Your task to perform on an android device: Clear the shopping cart on walmart. Search for "rayovac triple a" on walmart, select the first entry, and add it to the cart. Image 0: 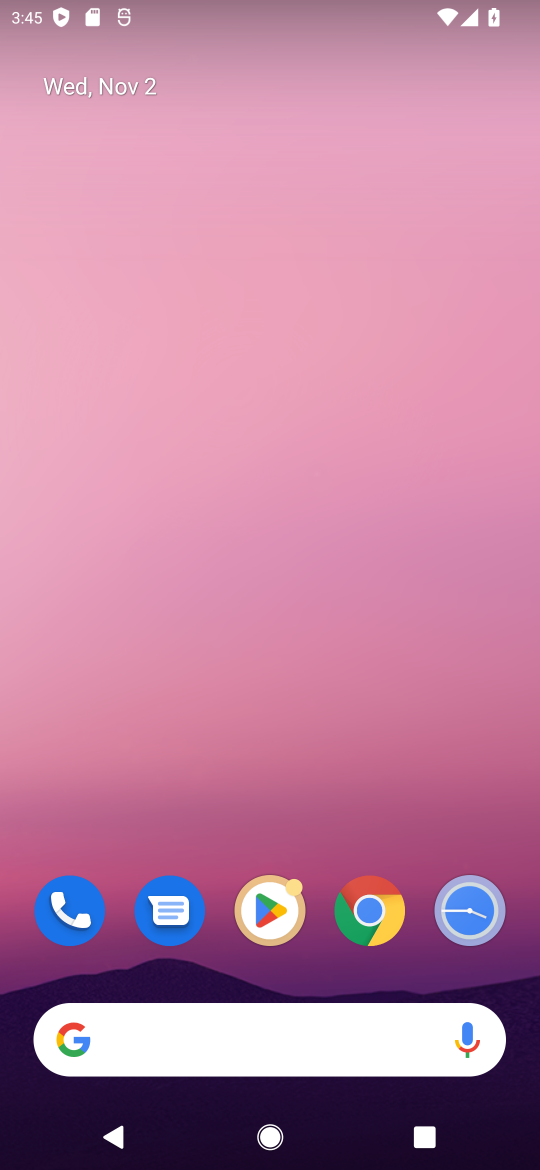
Step 0: click (360, 936)
Your task to perform on an android device: Clear the shopping cart on walmart. Search for "rayovac triple a" on walmart, select the first entry, and add it to the cart. Image 1: 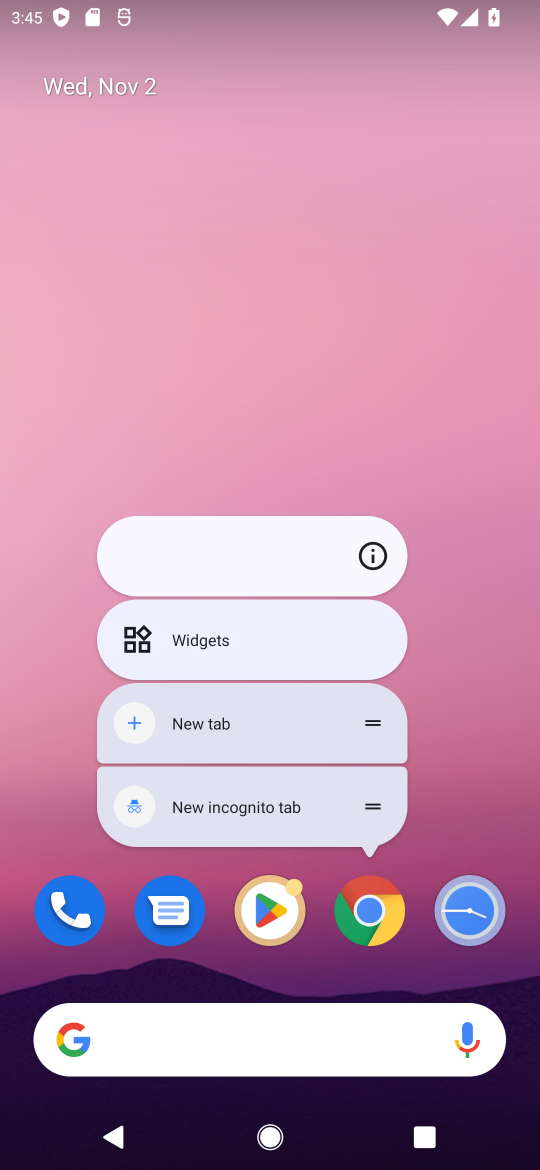
Step 1: click (368, 920)
Your task to perform on an android device: Clear the shopping cart on walmart. Search for "rayovac triple a" on walmart, select the first entry, and add it to the cart. Image 2: 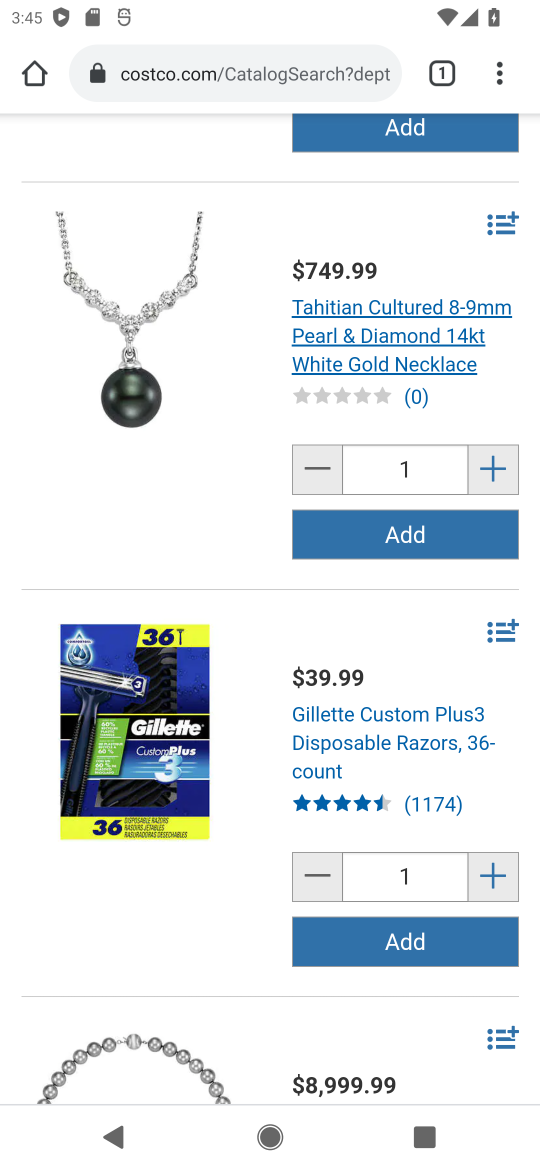
Step 2: click (144, 70)
Your task to perform on an android device: Clear the shopping cart on walmart. Search for "rayovac triple a" on walmart, select the first entry, and add it to the cart. Image 3: 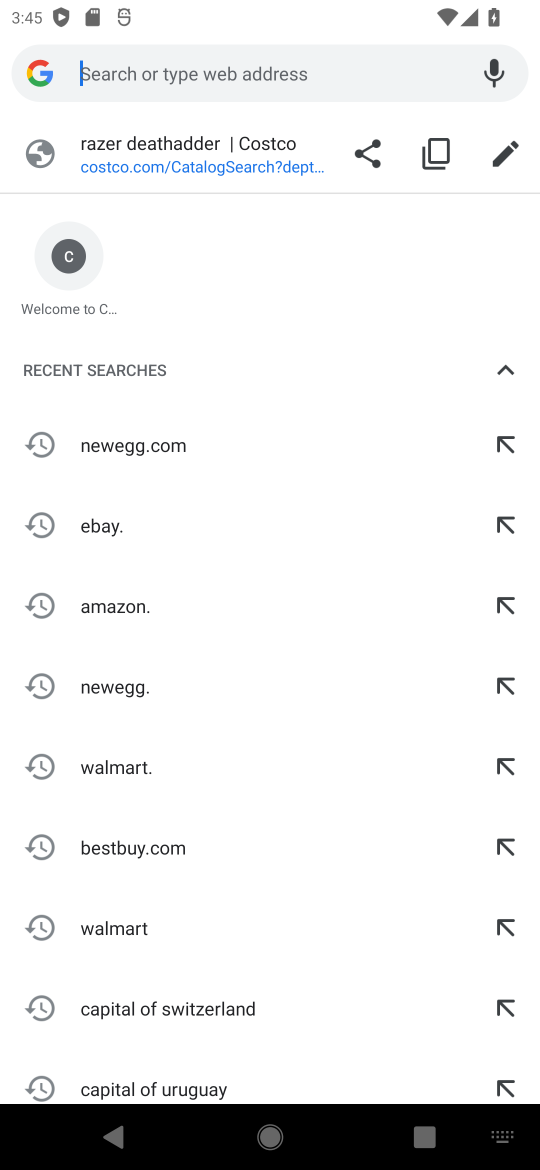
Step 3: type "walmart"
Your task to perform on an android device: Clear the shopping cart on walmart. Search for "rayovac triple a" on walmart, select the first entry, and add it to the cart. Image 4: 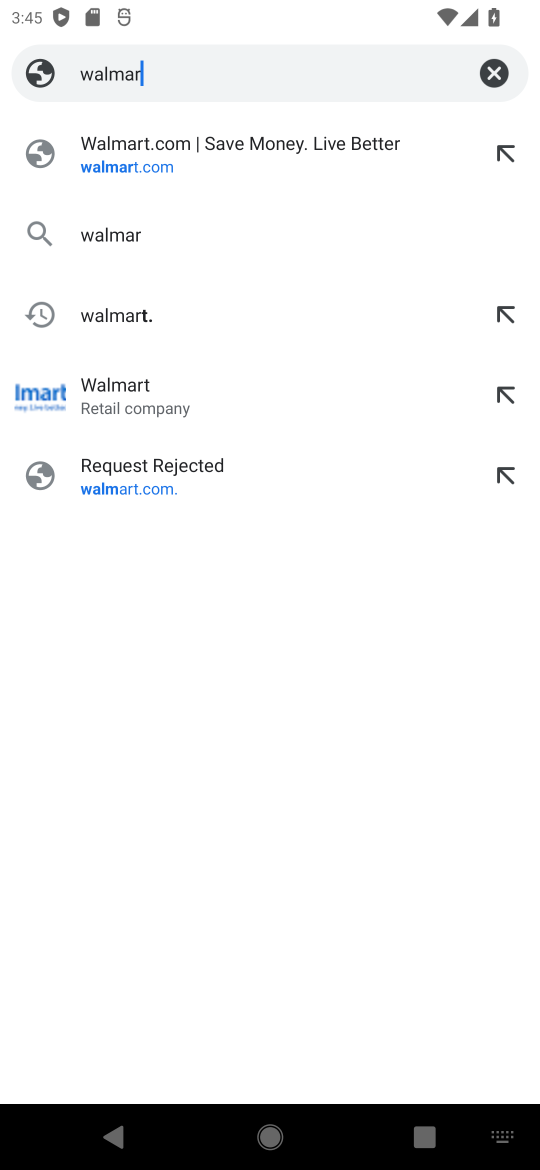
Step 4: type ""
Your task to perform on an android device: Clear the shopping cart on walmart. Search for "rayovac triple a" on walmart, select the first entry, and add it to the cart. Image 5: 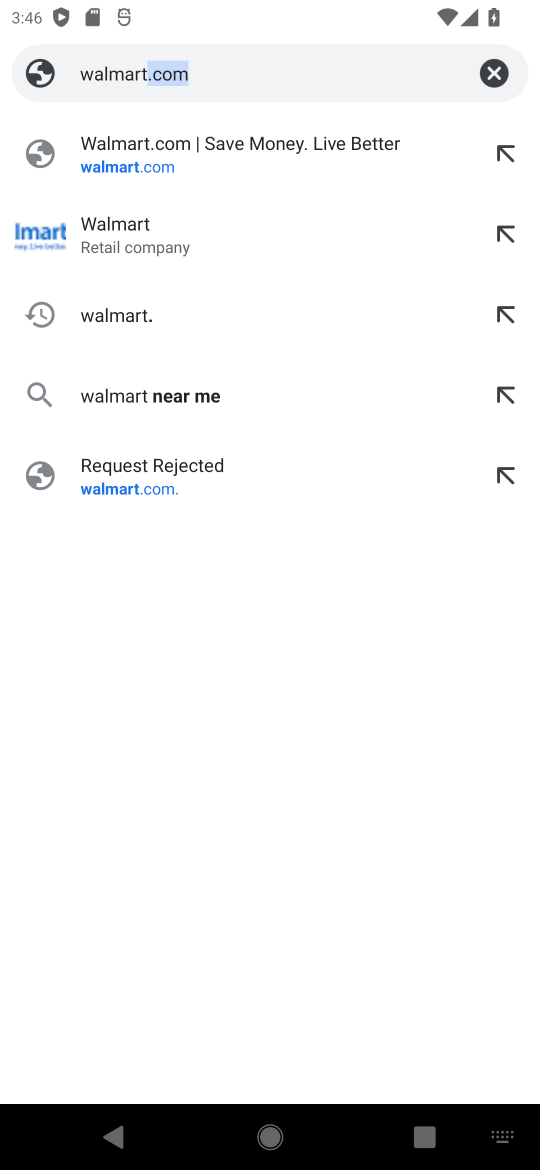
Step 5: click (361, 141)
Your task to perform on an android device: Clear the shopping cart on walmart. Search for "rayovac triple a" on walmart, select the first entry, and add it to the cart. Image 6: 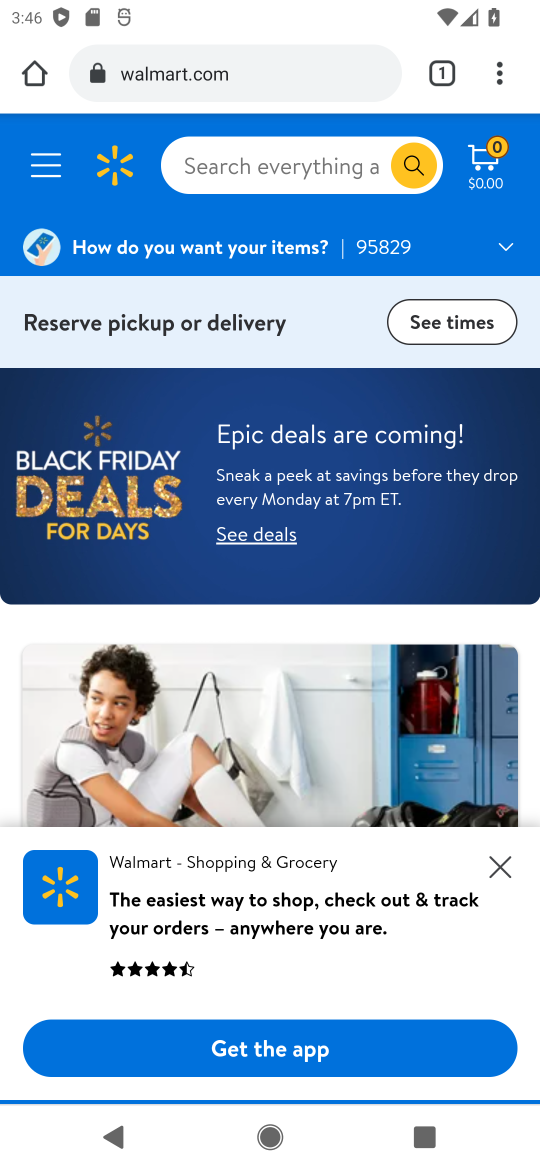
Step 6: click (489, 867)
Your task to perform on an android device: Clear the shopping cart on walmart. Search for "rayovac triple a" on walmart, select the first entry, and add it to the cart. Image 7: 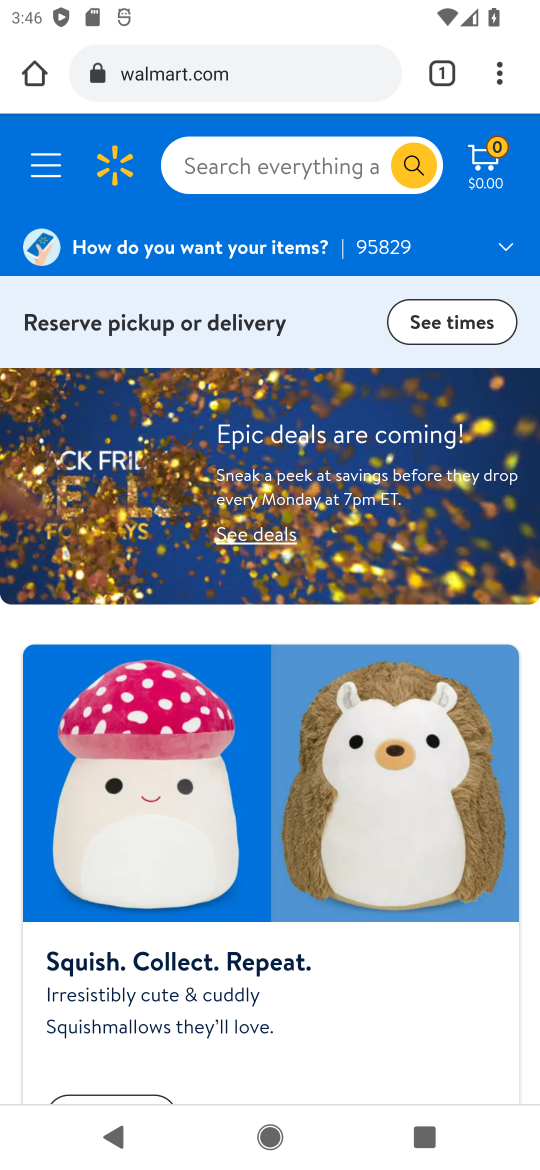
Step 7: click (257, 168)
Your task to perform on an android device: Clear the shopping cart on walmart. Search for "rayovac triple a" on walmart, select the first entry, and add it to the cart. Image 8: 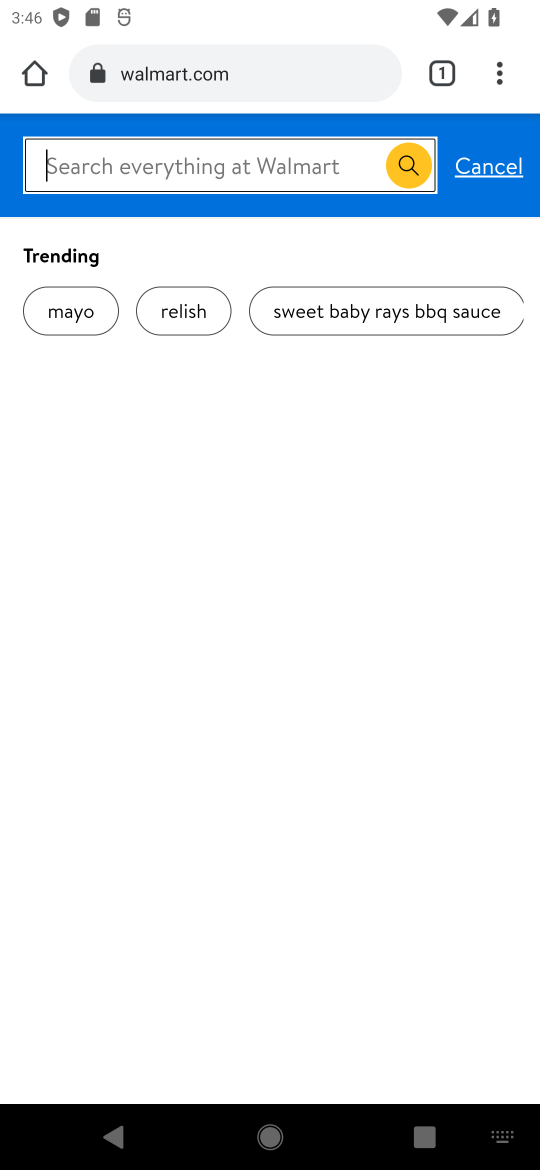
Step 8: type "rayovac triple a"
Your task to perform on an android device: Clear the shopping cart on walmart. Search for "rayovac triple a" on walmart, select the first entry, and add it to the cart. Image 9: 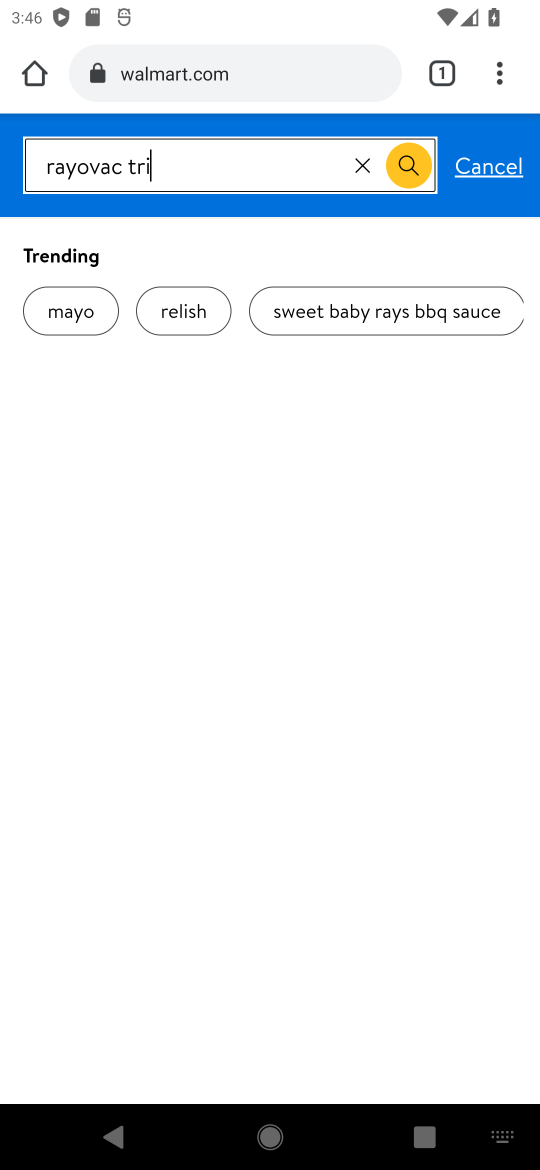
Step 9: type ""
Your task to perform on an android device: Clear the shopping cart on walmart. Search for "rayovac triple a" on walmart, select the first entry, and add it to the cart. Image 10: 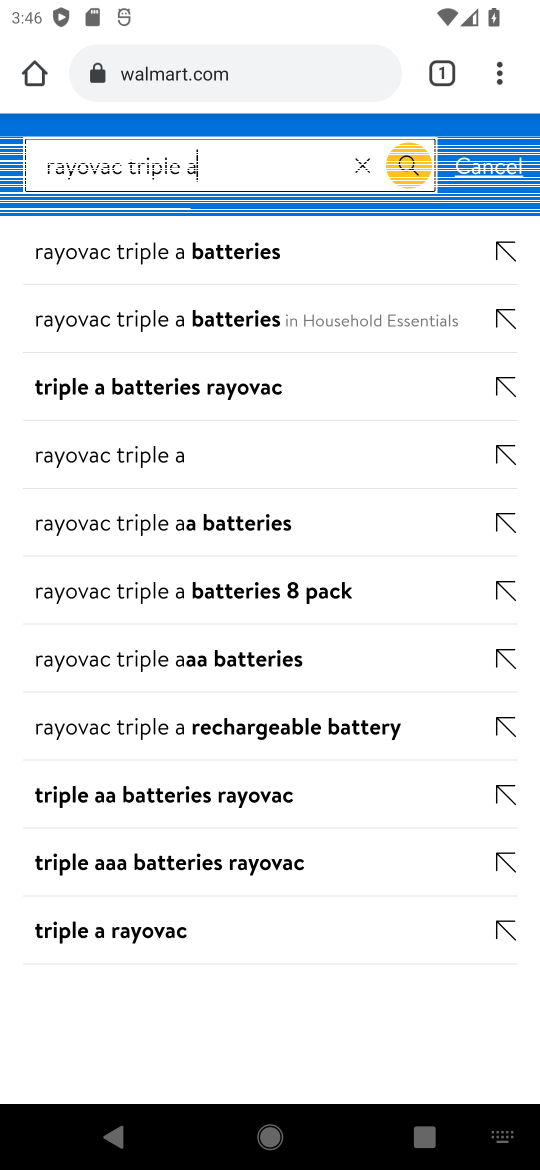
Step 10: click (191, 247)
Your task to perform on an android device: Clear the shopping cart on walmart. Search for "rayovac triple a" on walmart, select the first entry, and add it to the cart. Image 11: 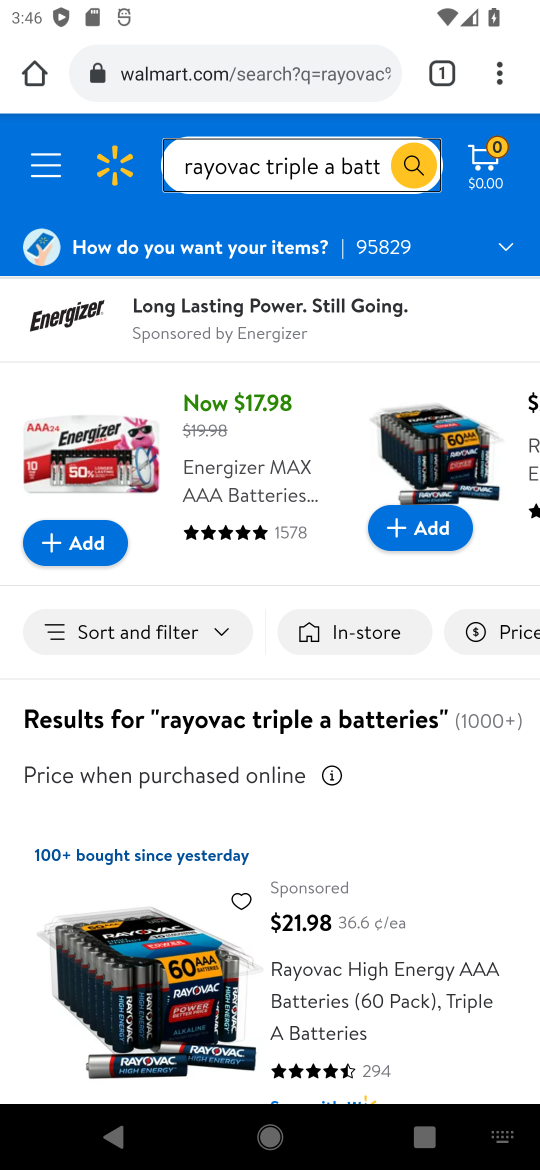
Step 11: drag from (442, 906) to (436, 701)
Your task to perform on an android device: Clear the shopping cart on walmart. Search for "rayovac triple a" on walmart, select the first entry, and add it to the cart. Image 12: 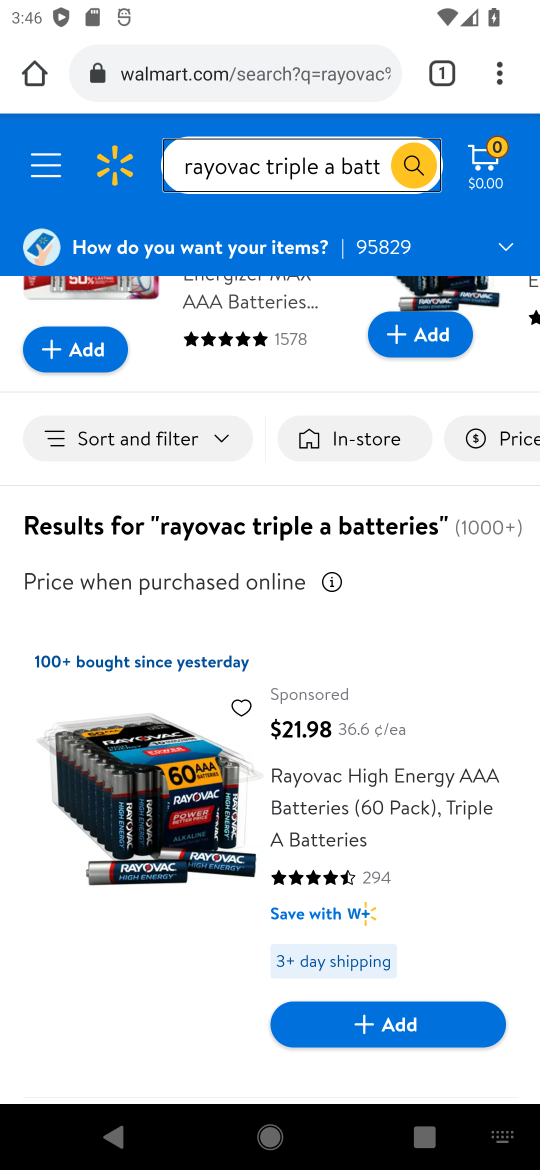
Step 12: click (377, 1031)
Your task to perform on an android device: Clear the shopping cart on walmart. Search for "rayovac triple a" on walmart, select the first entry, and add it to the cart. Image 13: 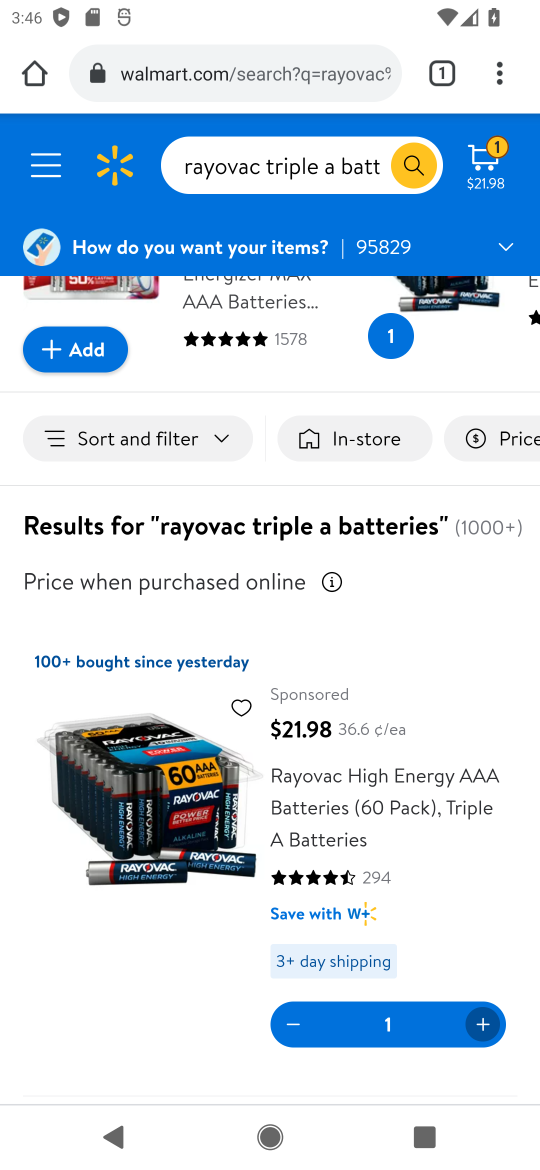
Step 13: click (502, 183)
Your task to perform on an android device: Clear the shopping cart on walmart. Search for "rayovac triple a" on walmart, select the first entry, and add it to the cart. Image 14: 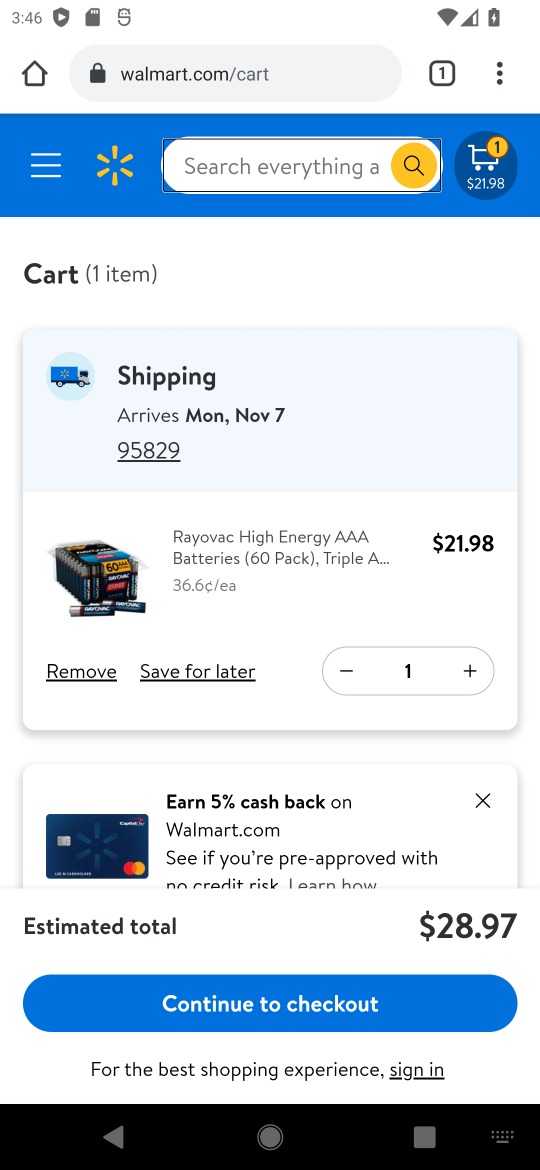
Step 14: click (476, 794)
Your task to perform on an android device: Clear the shopping cart on walmart. Search for "rayovac triple a" on walmart, select the first entry, and add it to the cart. Image 15: 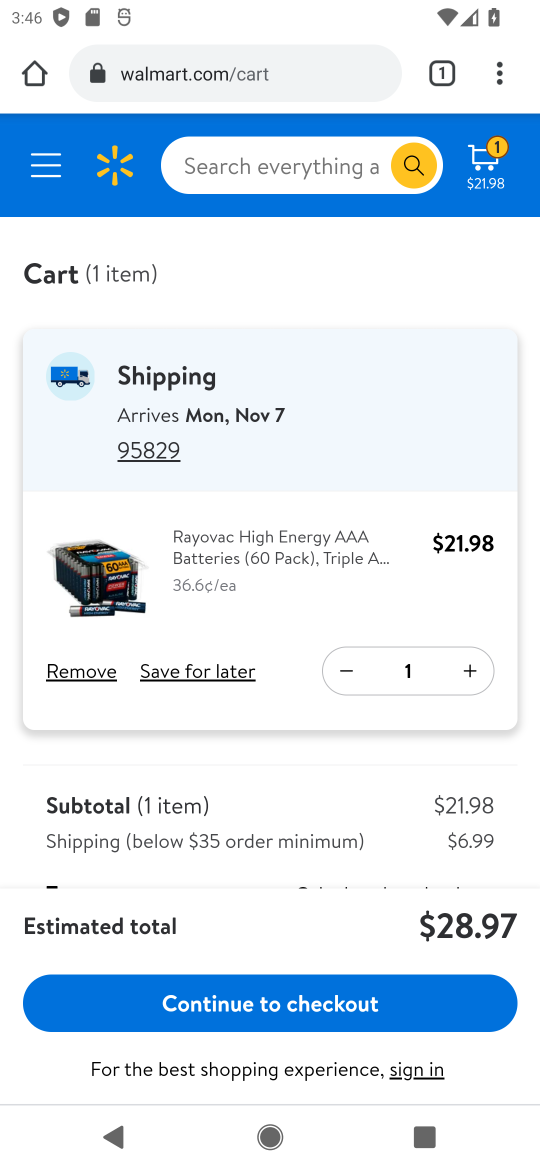
Step 15: click (450, 580)
Your task to perform on an android device: Clear the shopping cart on walmart. Search for "rayovac triple a" on walmart, select the first entry, and add it to the cart. Image 16: 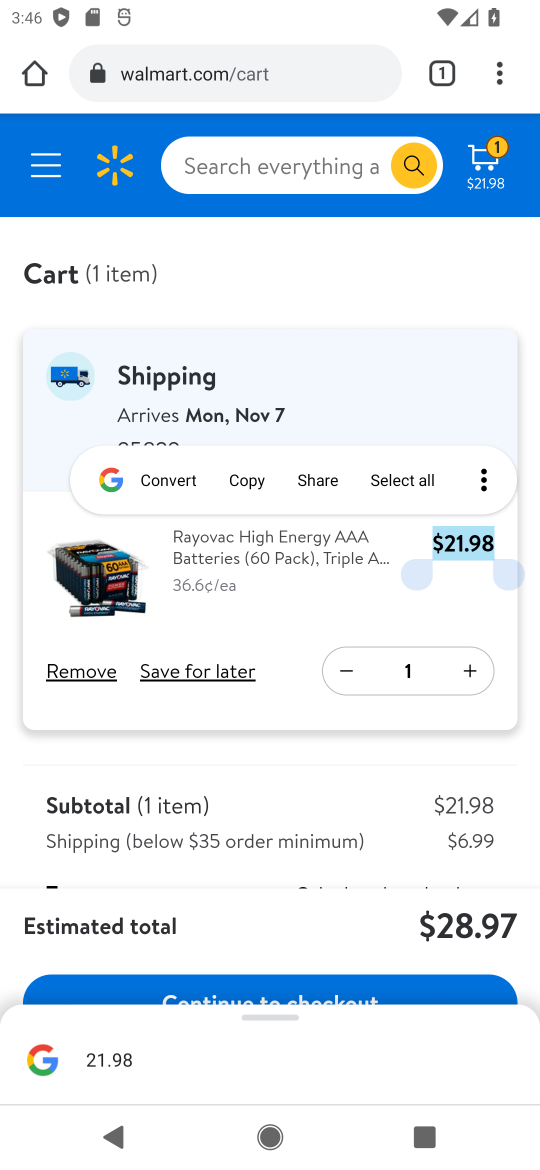
Step 16: drag from (266, 792) to (361, 487)
Your task to perform on an android device: Clear the shopping cart on walmart. Search for "rayovac triple a" on walmart, select the first entry, and add it to the cart. Image 17: 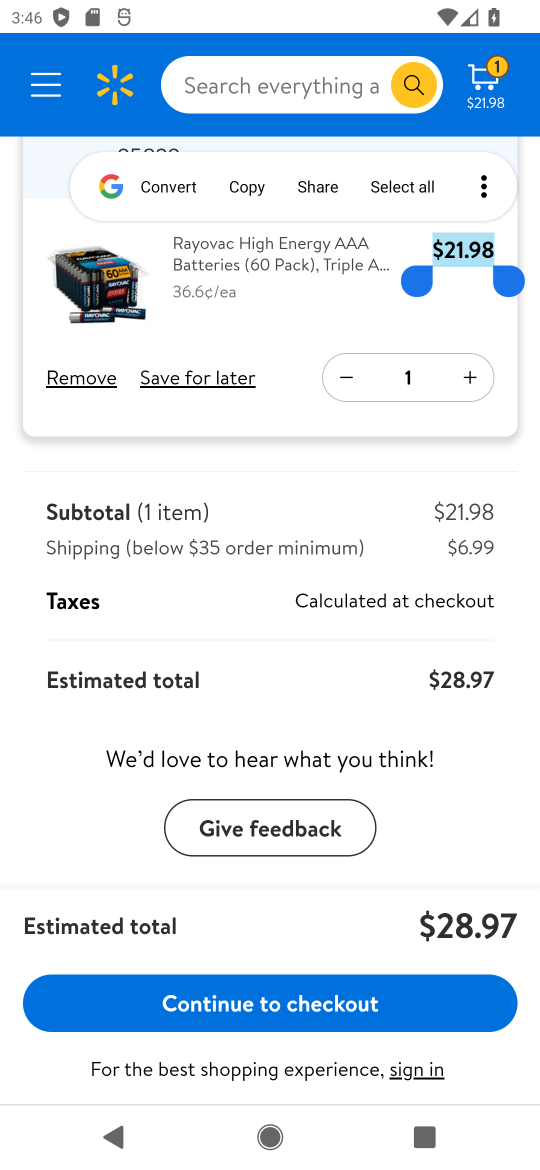
Step 17: click (279, 910)
Your task to perform on an android device: Clear the shopping cart on walmart. Search for "rayovac triple a" on walmart, select the first entry, and add it to the cart. Image 18: 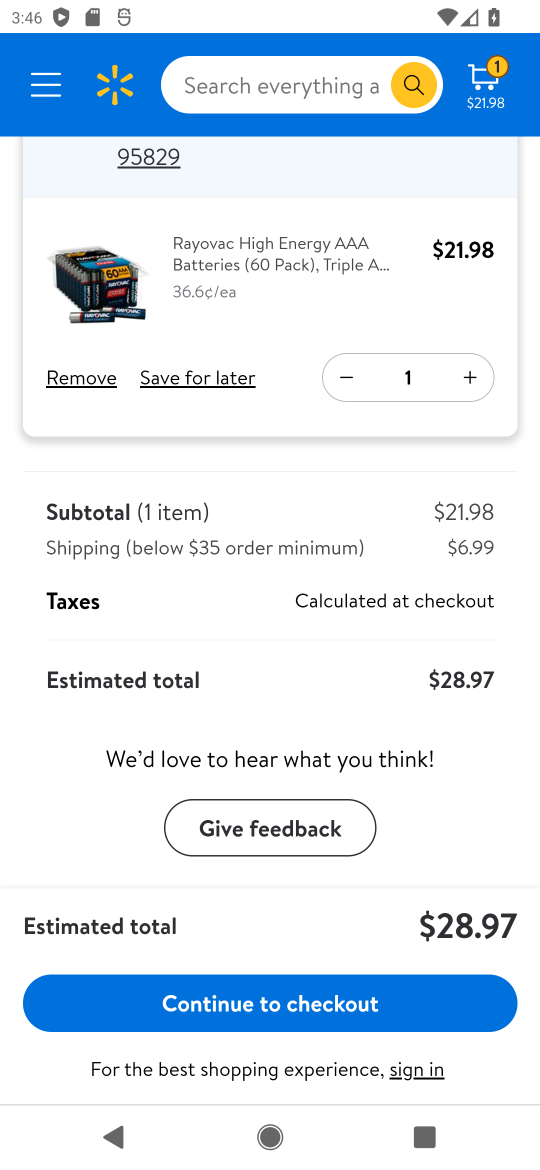
Step 18: click (289, 980)
Your task to perform on an android device: Clear the shopping cart on walmart. Search for "rayovac triple a" on walmart, select the first entry, and add it to the cart. Image 19: 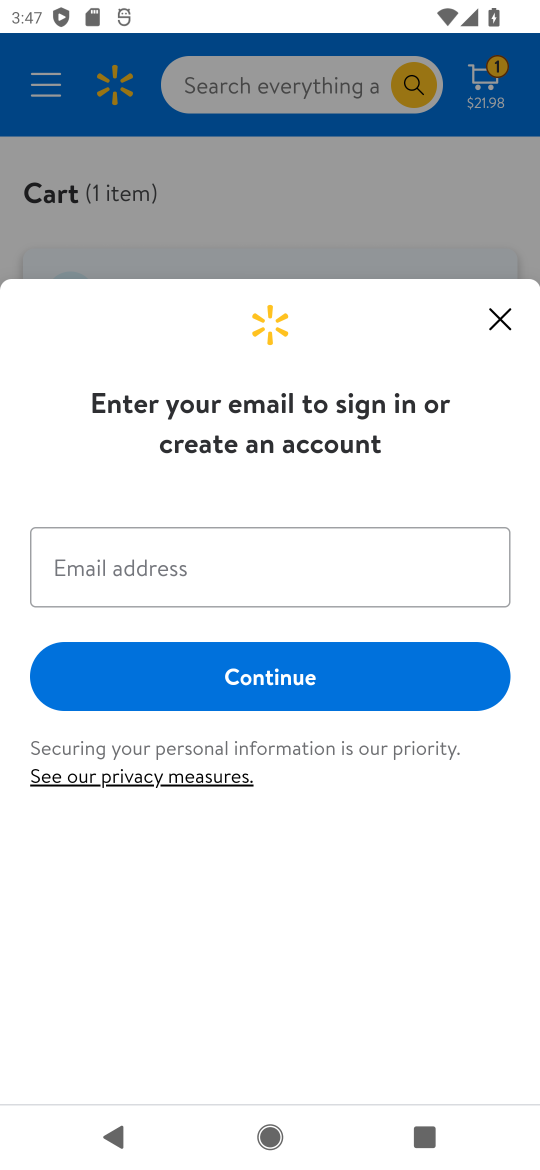
Step 19: click (493, 313)
Your task to perform on an android device: Clear the shopping cart on walmart. Search for "rayovac triple a" on walmart, select the first entry, and add it to the cart. Image 20: 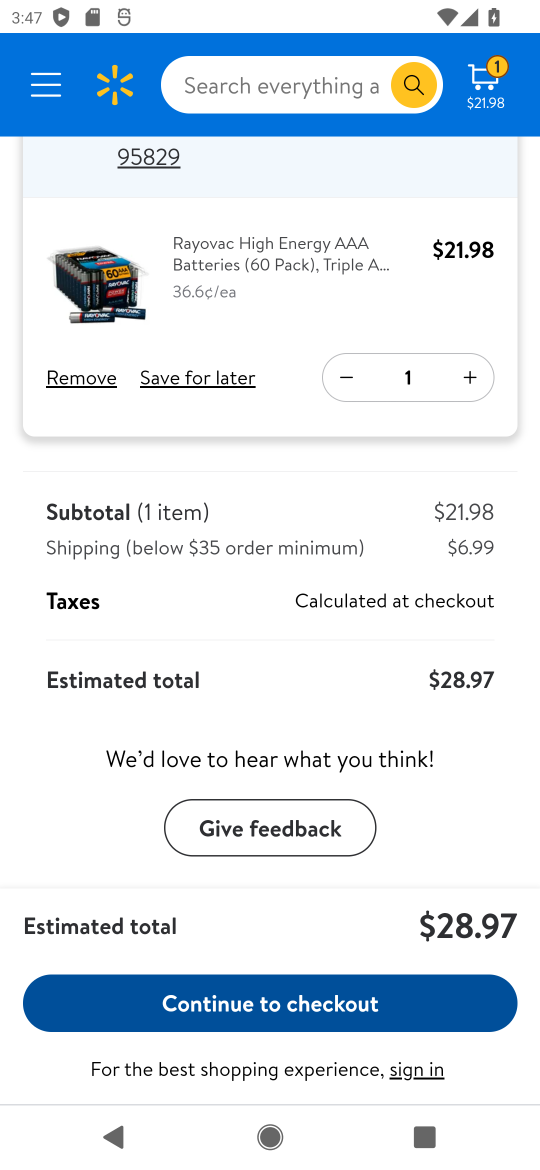
Step 20: drag from (381, 741) to (405, 406)
Your task to perform on an android device: Clear the shopping cart on walmart. Search for "rayovac triple a" on walmart, select the first entry, and add it to the cart. Image 21: 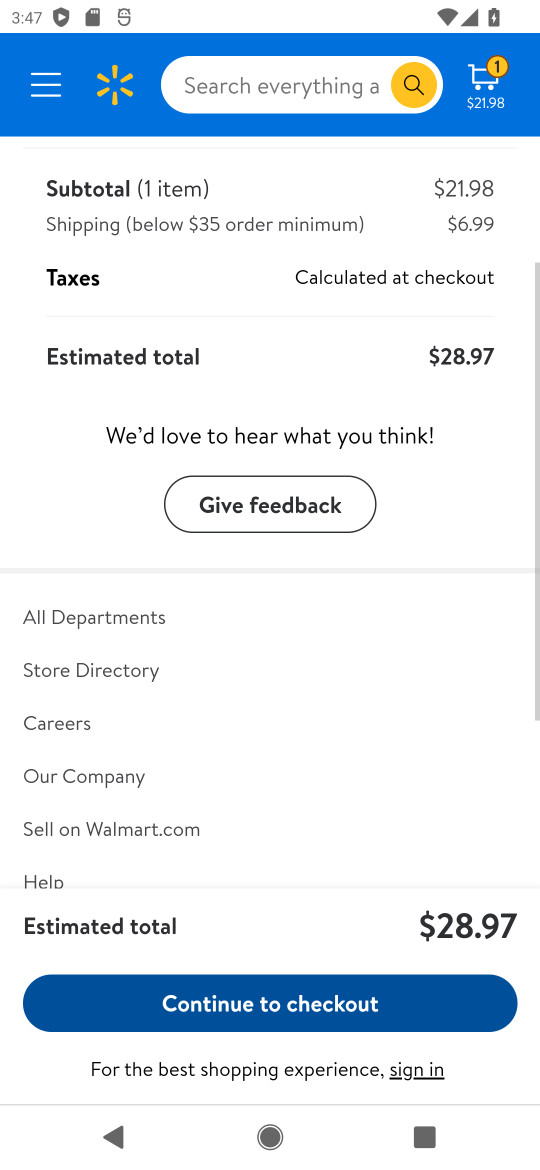
Step 21: click (286, 1024)
Your task to perform on an android device: Clear the shopping cart on walmart. Search for "rayovac triple a" on walmart, select the first entry, and add it to the cart. Image 22: 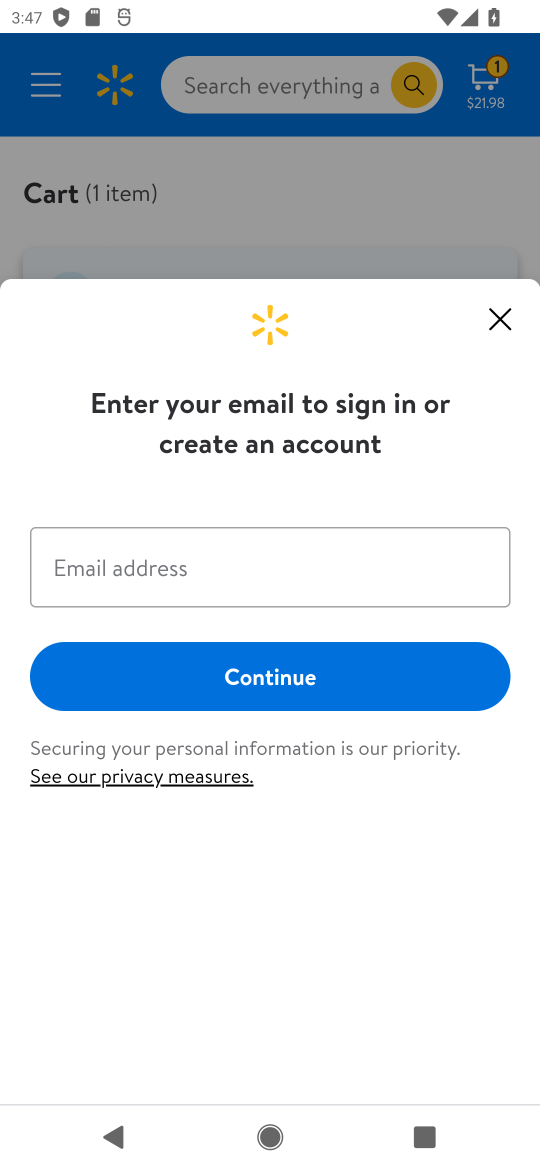
Step 22: click (483, 322)
Your task to perform on an android device: Clear the shopping cart on walmart. Search for "rayovac triple a" on walmart, select the first entry, and add it to the cart. Image 23: 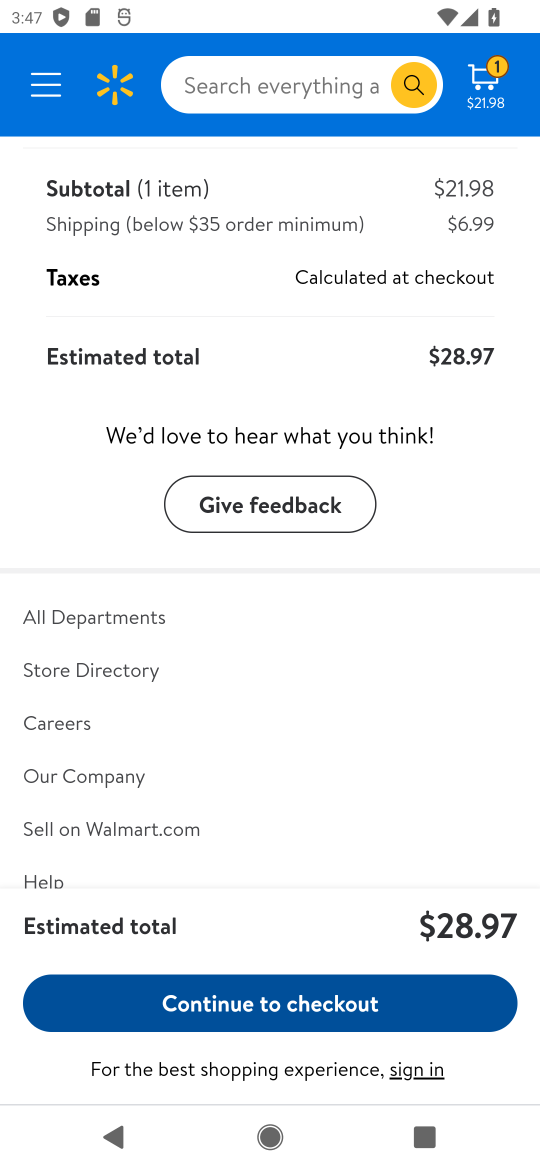
Step 23: task complete